Your task to perform on an android device: Go to location settings Image 0: 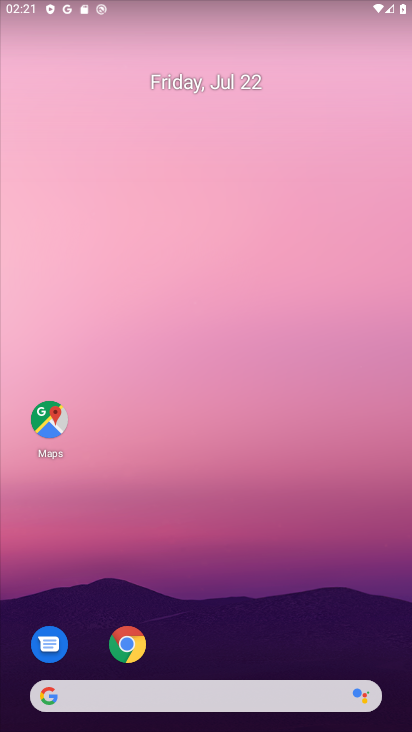
Step 0: drag from (348, 717) to (29, 71)
Your task to perform on an android device: Go to location settings Image 1: 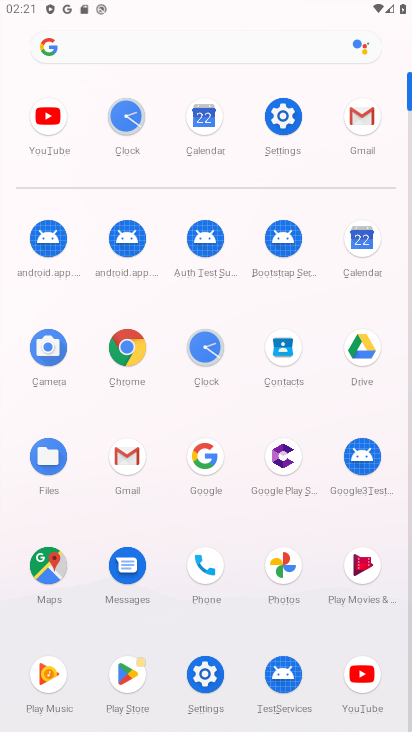
Step 1: click (274, 117)
Your task to perform on an android device: Go to location settings Image 2: 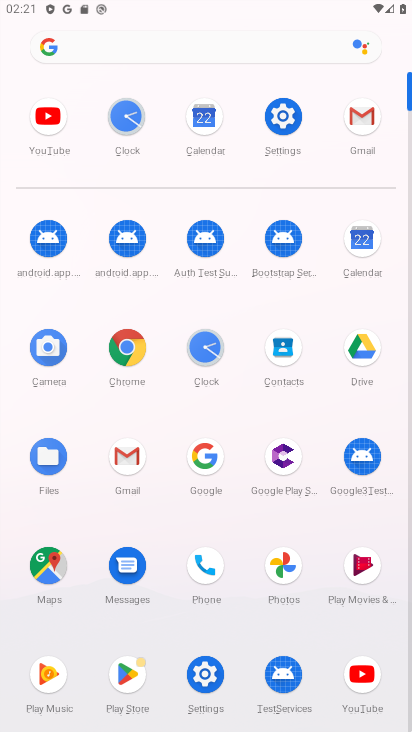
Step 2: click (273, 117)
Your task to perform on an android device: Go to location settings Image 3: 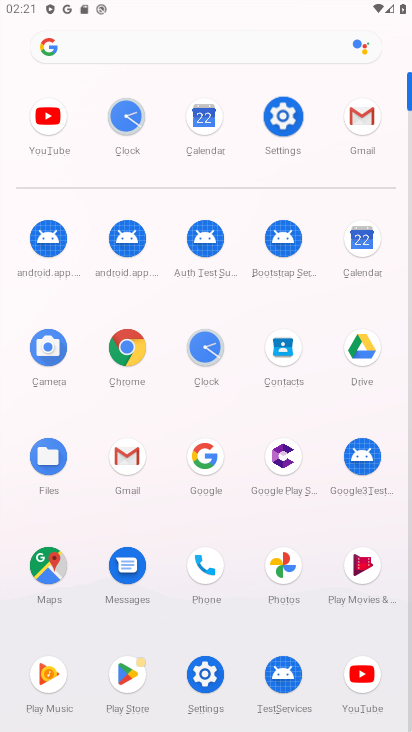
Step 3: click (273, 117)
Your task to perform on an android device: Go to location settings Image 4: 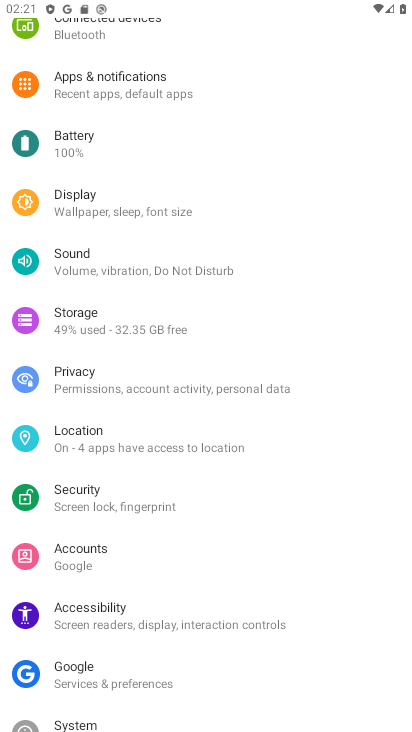
Step 4: click (190, 447)
Your task to perform on an android device: Go to location settings Image 5: 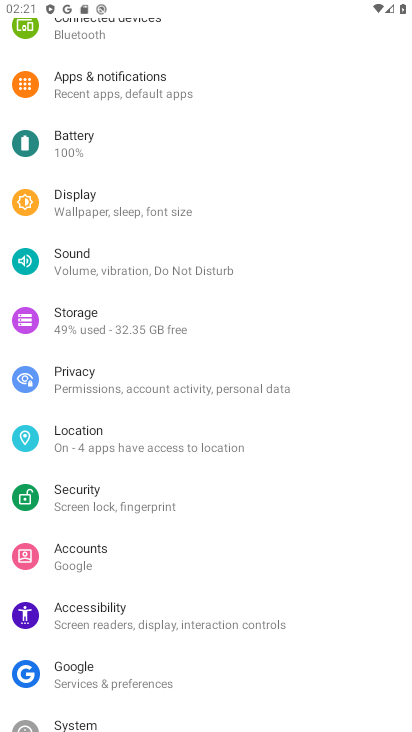
Step 5: click (190, 441)
Your task to perform on an android device: Go to location settings Image 6: 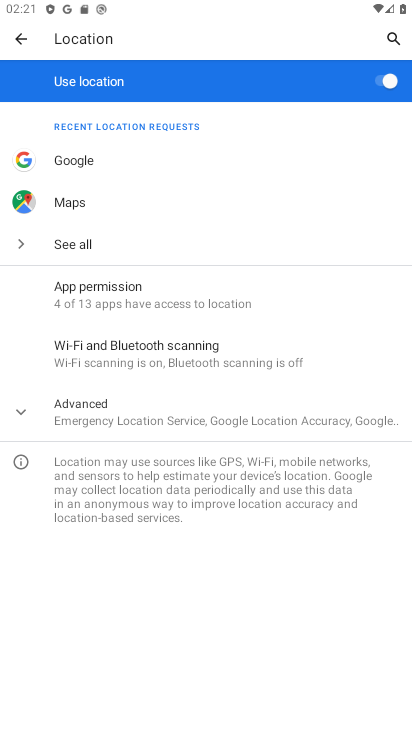
Step 6: task complete